Your task to perform on an android device: turn notification dots on Image 0: 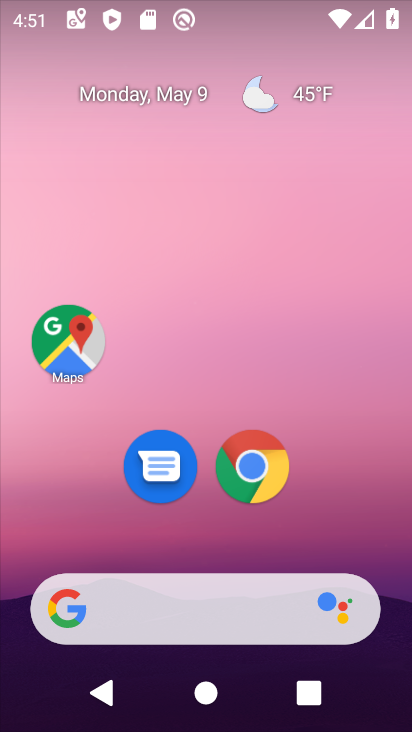
Step 0: drag from (353, 522) to (284, 21)
Your task to perform on an android device: turn notification dots on Image 1: 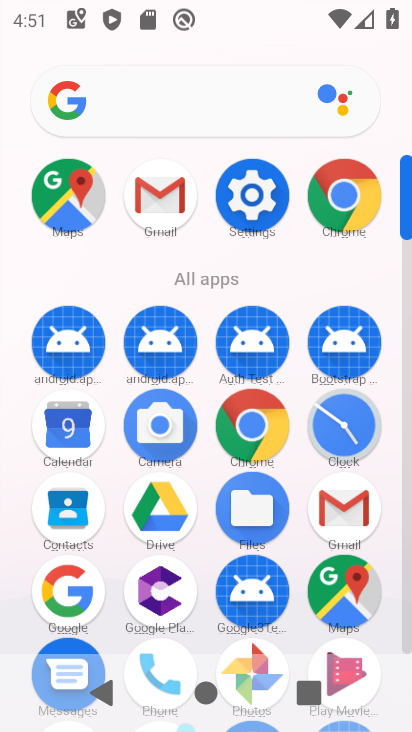
Step 1: drag from (14, 603) to (7, 251)
Your task to perform on an android device: turn notification dots on Image 2: 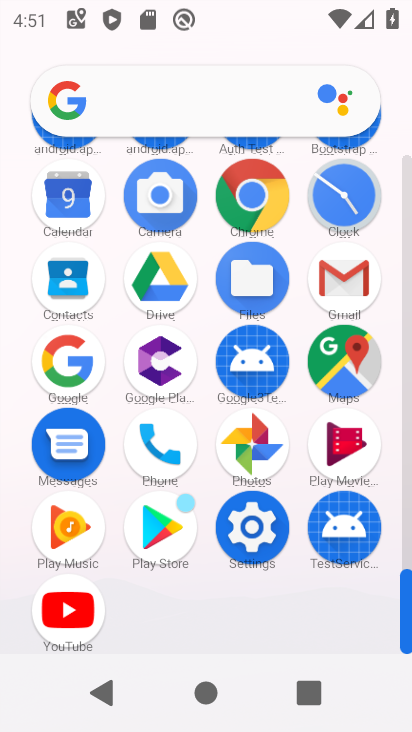
Step 2: click (253, 524)
Your task to perform on an android device: turn notification dots on Image 3: 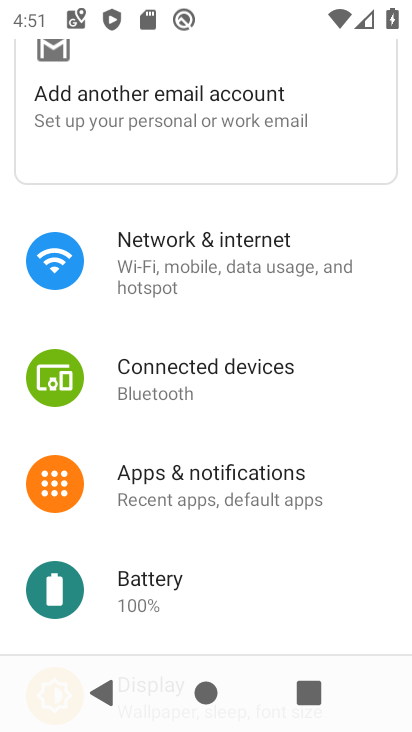
Step 3: click (246, 485)
Your task to perform on an android device: turn notification dots on Image 4: 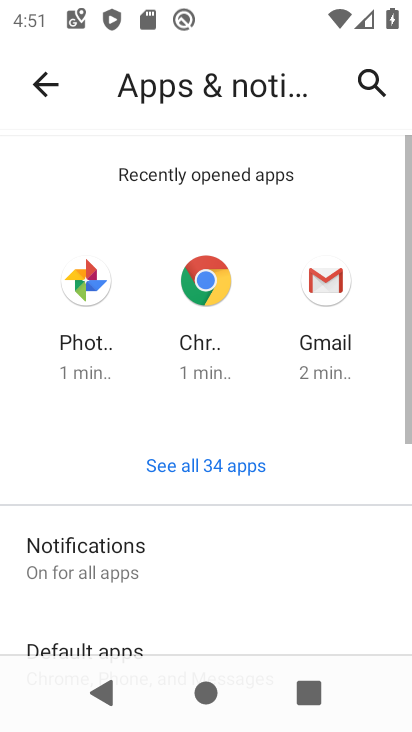
Step 4: click (109, 554)
Your task to perform on an android device: turn notification dots on Image 5: 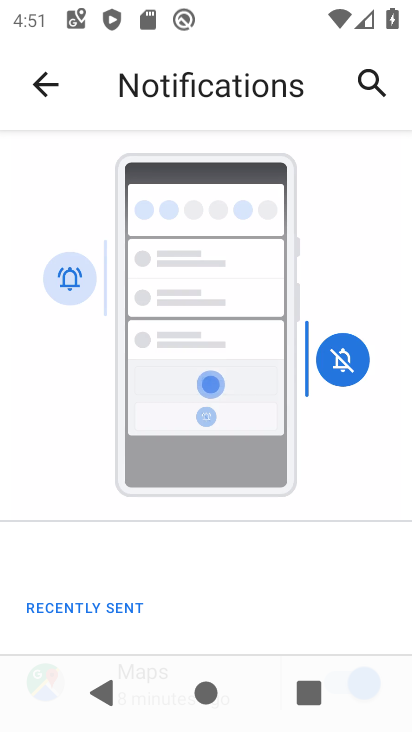
Step 5: drag from (174, 595) to (222, 134)
Your task to perform on an android device: turn notification dots on Image 6: 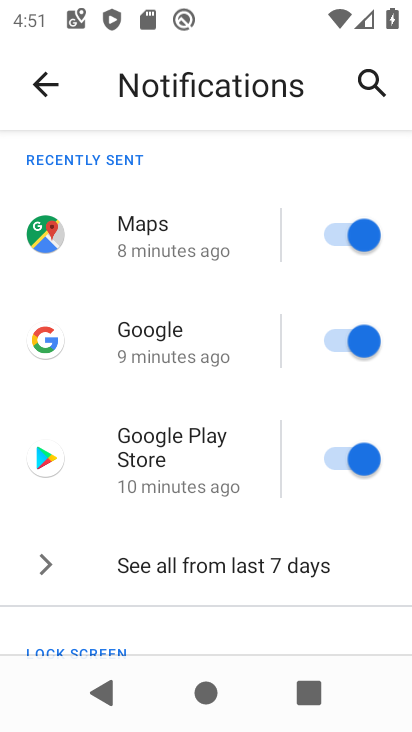
Step 6: drag from (165, 558) to (170, 176)
Your task to perform on an android device: turn notification dots on Image 7: 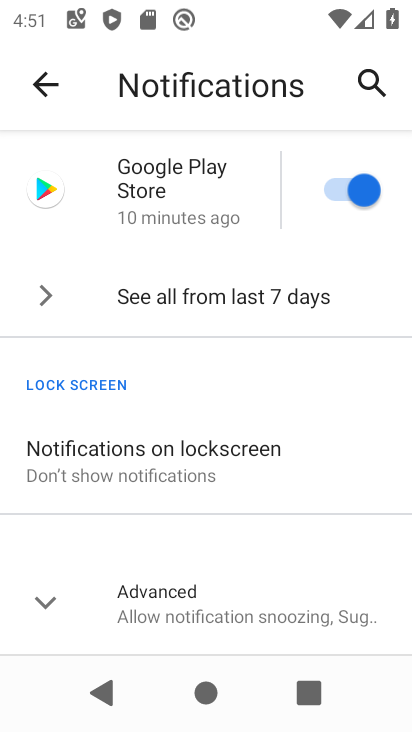
Step 7: click (33, 595)
Your task to perform on an android device: turn notification dots on Image 8: 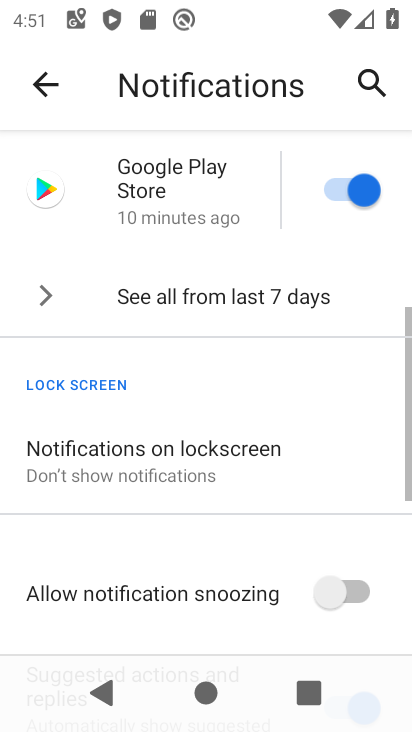
Step 8: task complete